Your task to perform on an android device: set the timer Image 0: 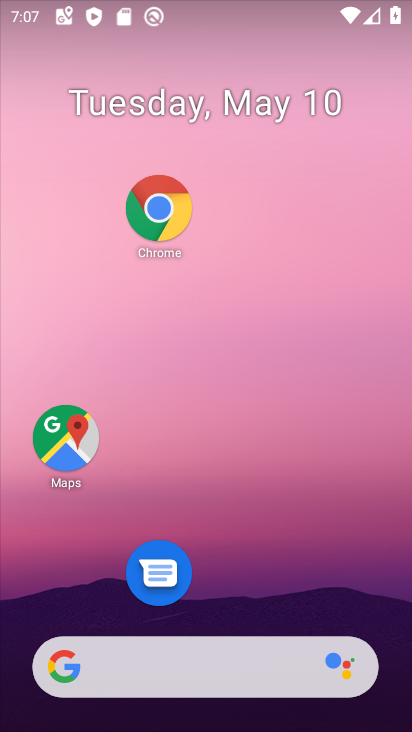
Step 0: drag from (293, 655) to (185, 261)
Your task to perform on an android device: set the timer Image 1: 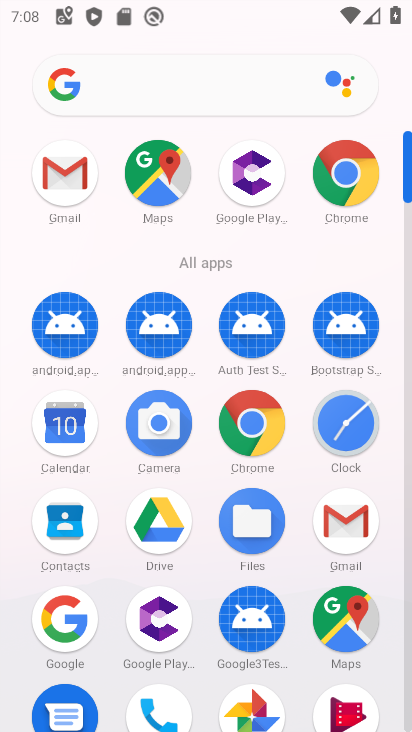
Step 1: click (359, 428)
Your task to perform on an android device: set the timer Image 2: 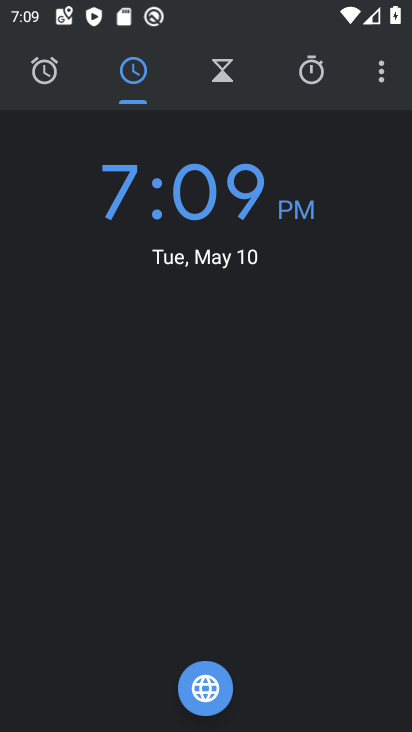
Step 2: click (370, 81)
Your task to perform on an android device: set the timer Image 3: 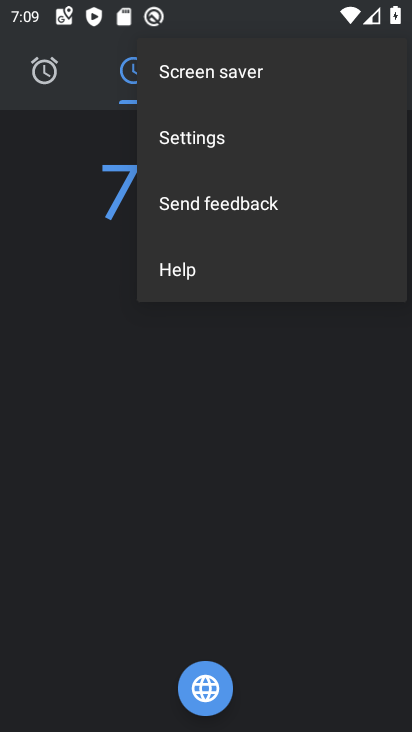
Step 3: click (245, 135)
Your task to perform on an android device: set the timer Image 4: 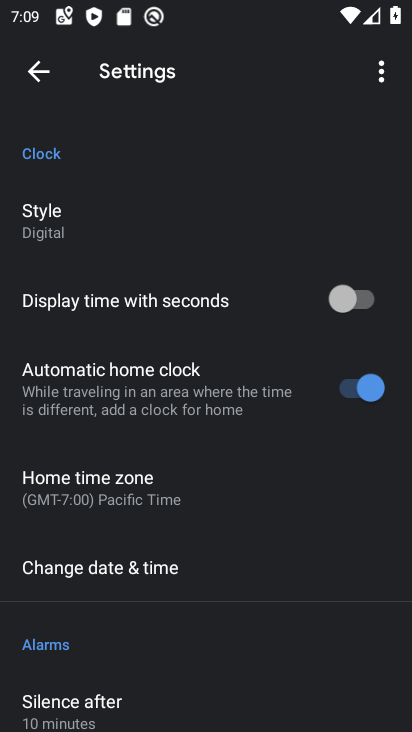
Step 4: drag from (30, 658) to (44, 280)
Your task to perform on an android device: set the timer Image 5: 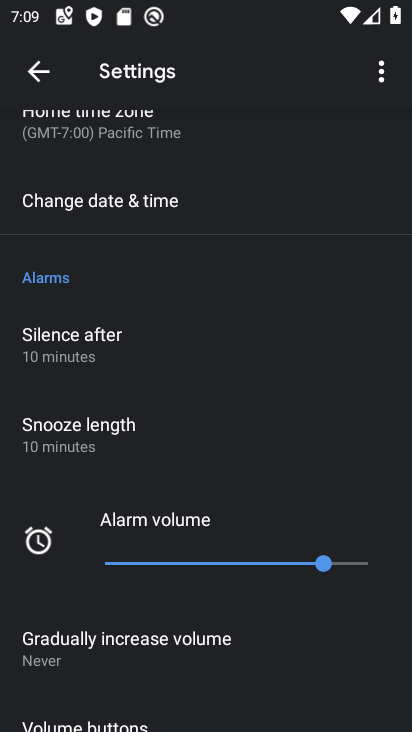
Step 5: drag from (165, 546) to (167, 325)
Your task to perform on an android device: set the timer Image 6: 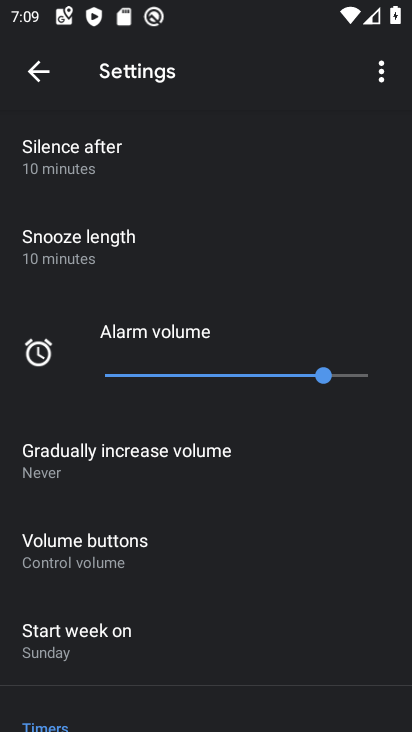
Step 6: drag from (193, 616) to (176, 393)
Your task to perform on an android device: set the timer Image 7: 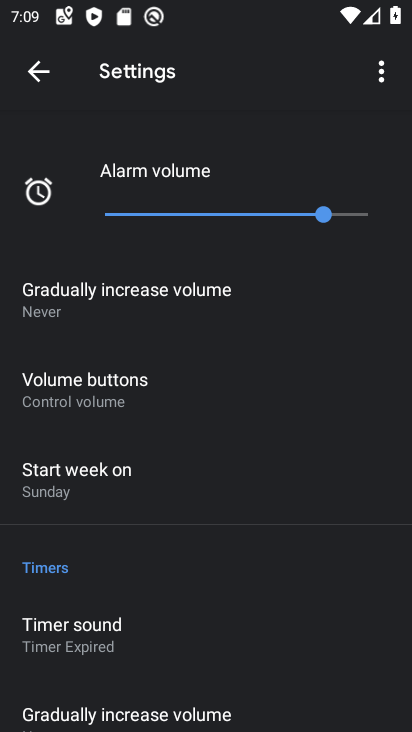
Step 7: click (137, 635)
Your task to perform on an android device: set the timer Image 8: 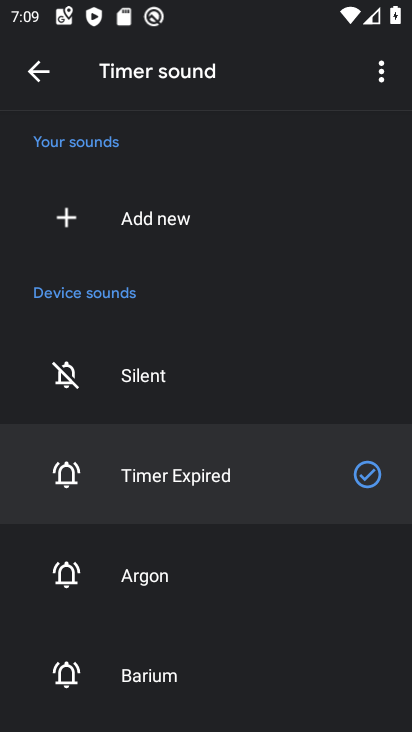
Step 8: click (145, 599)
Your task to perform on an android device: set the timer Image 9: 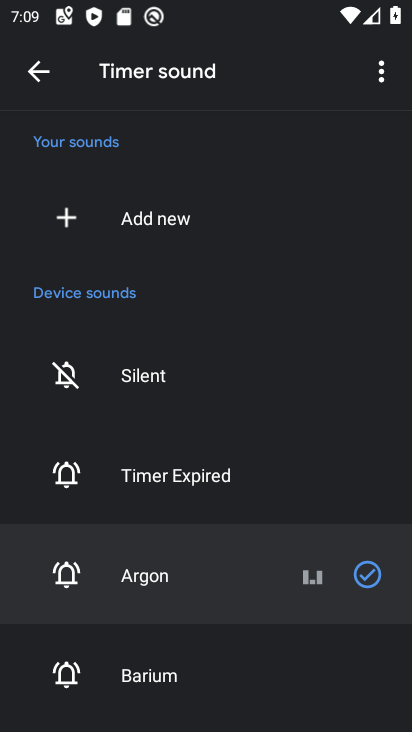
Step 9: task complete